Your task to perform on an android device: turn off location Image 0: 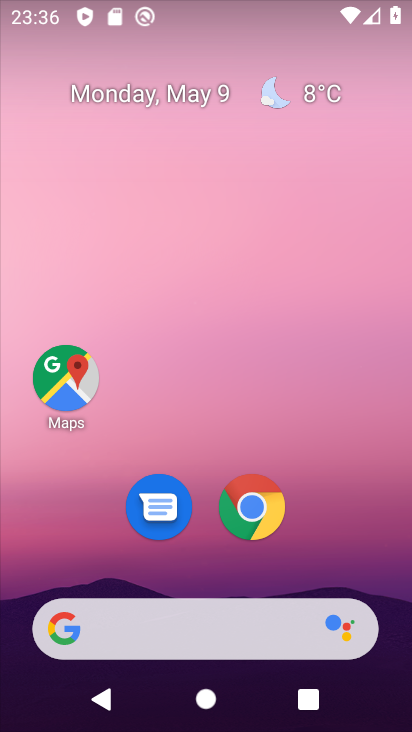
Step 0: drag from (202, 612) to (381, 104)
Your task to perform on an android device: turn off location Image 1: 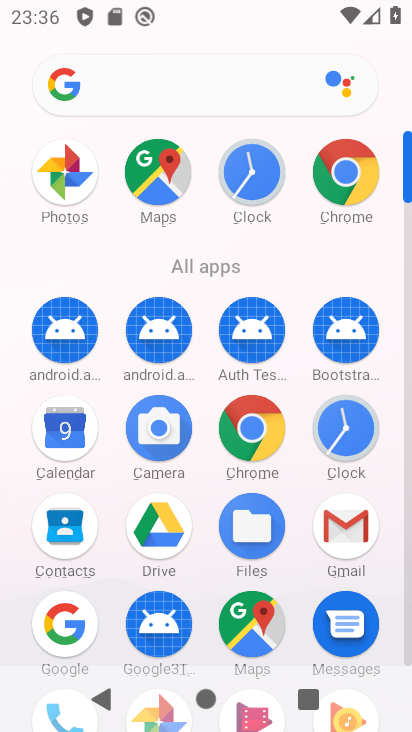
Step 1: drag from (192, 624) to (212, 462)
Your task to perform on an android device: turn off location Image 2: 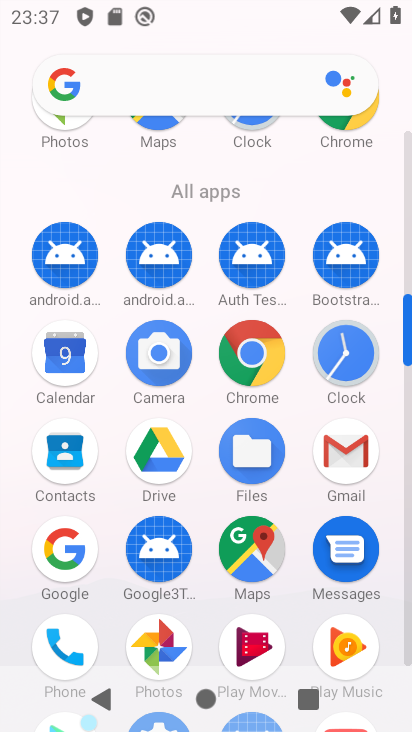
Step 2: drag from (187, 681) to (232, 421)
Your task to perform on an android device: turn off location Image 3: 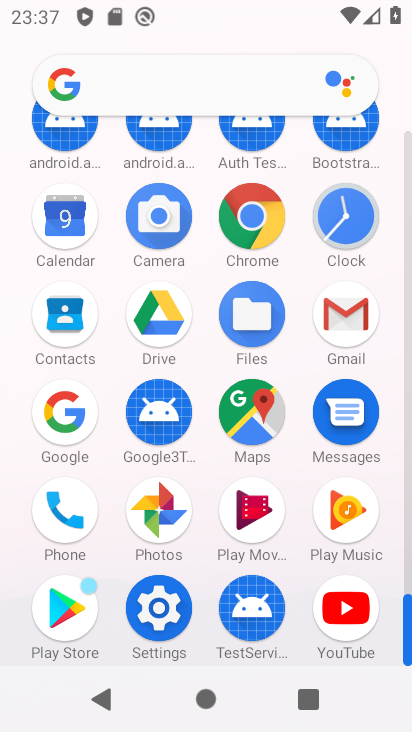
Step 3: click (164, 594)
Your task to perform on an android device: turn off location Image 4: 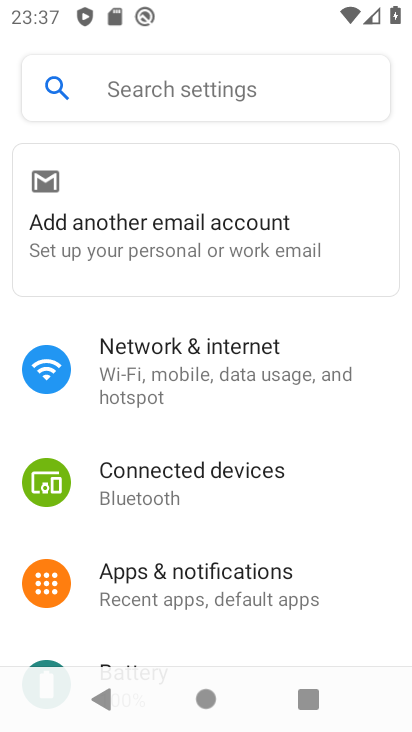
Step 4: drag from (168, 632) to (257, 321)
Your task to perform on an android device: turn off location Image 5: 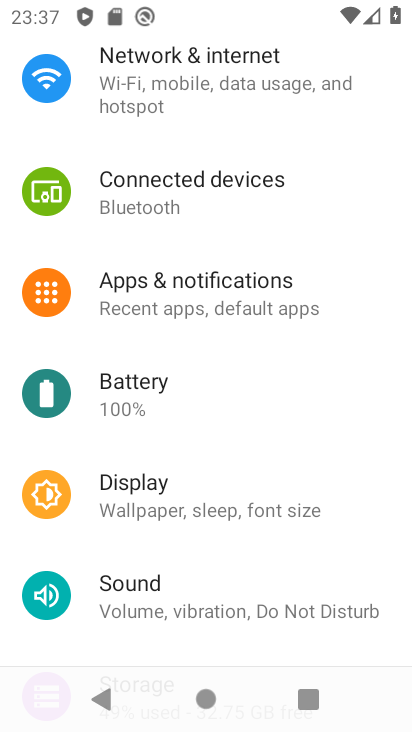
Step 5: drag from (169, 603) to (284, 232)
Your task to perform on an android device: turn off location Image 6: 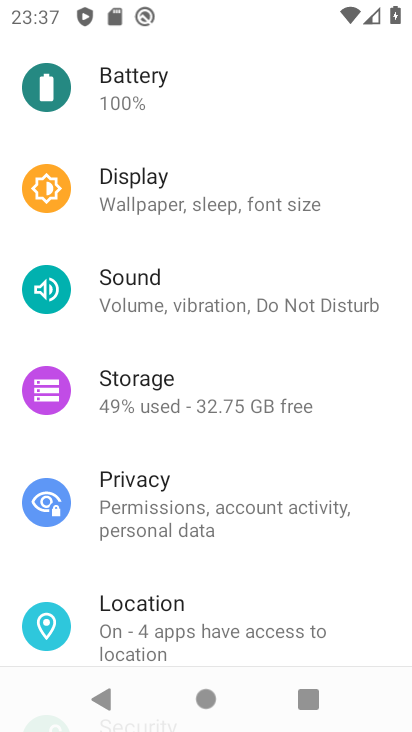
Step 6: click (165, 618)
Your task to perform on an android device: turn off location Image 7: 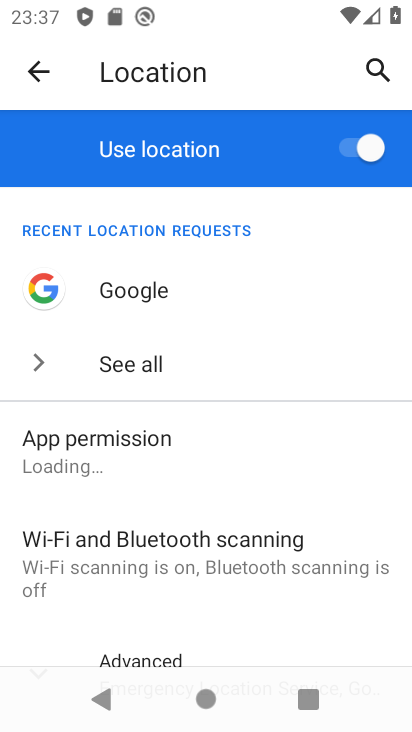
Step 7: click (364, 143)
Your task to perform on an android device: turn off location Image 8: 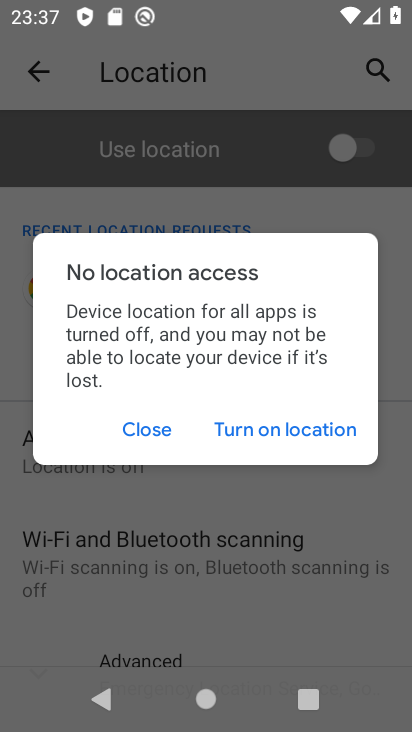
Step 8: click (166, 434)
Your task to perform on an android device: turn off location Image 9: 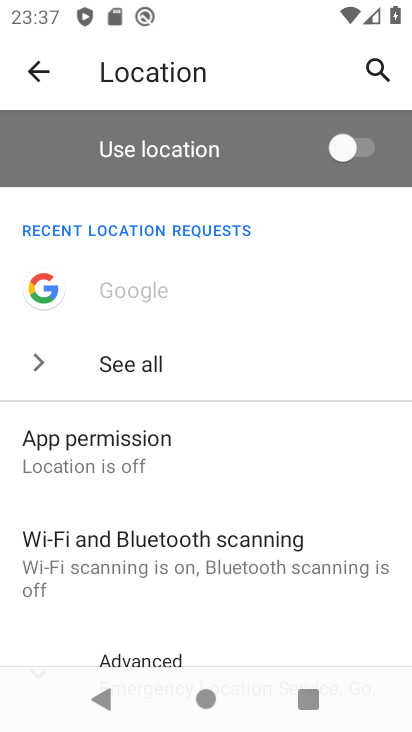
Step 9: task complete